Your task to perform on an android device: turn off location history Image 0: 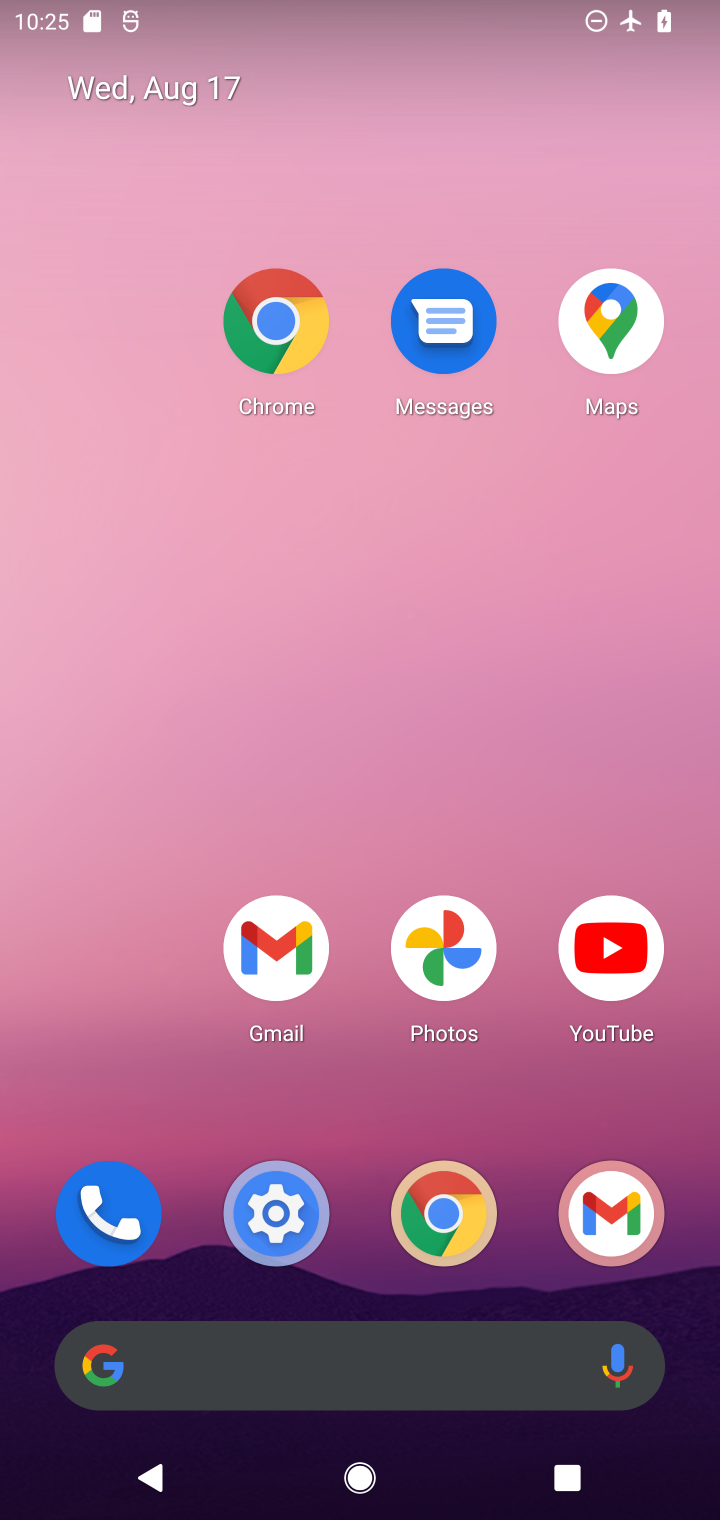
Step 0: click (215, 1217)
Your task to perform on an android device: turn off location history Image 1: 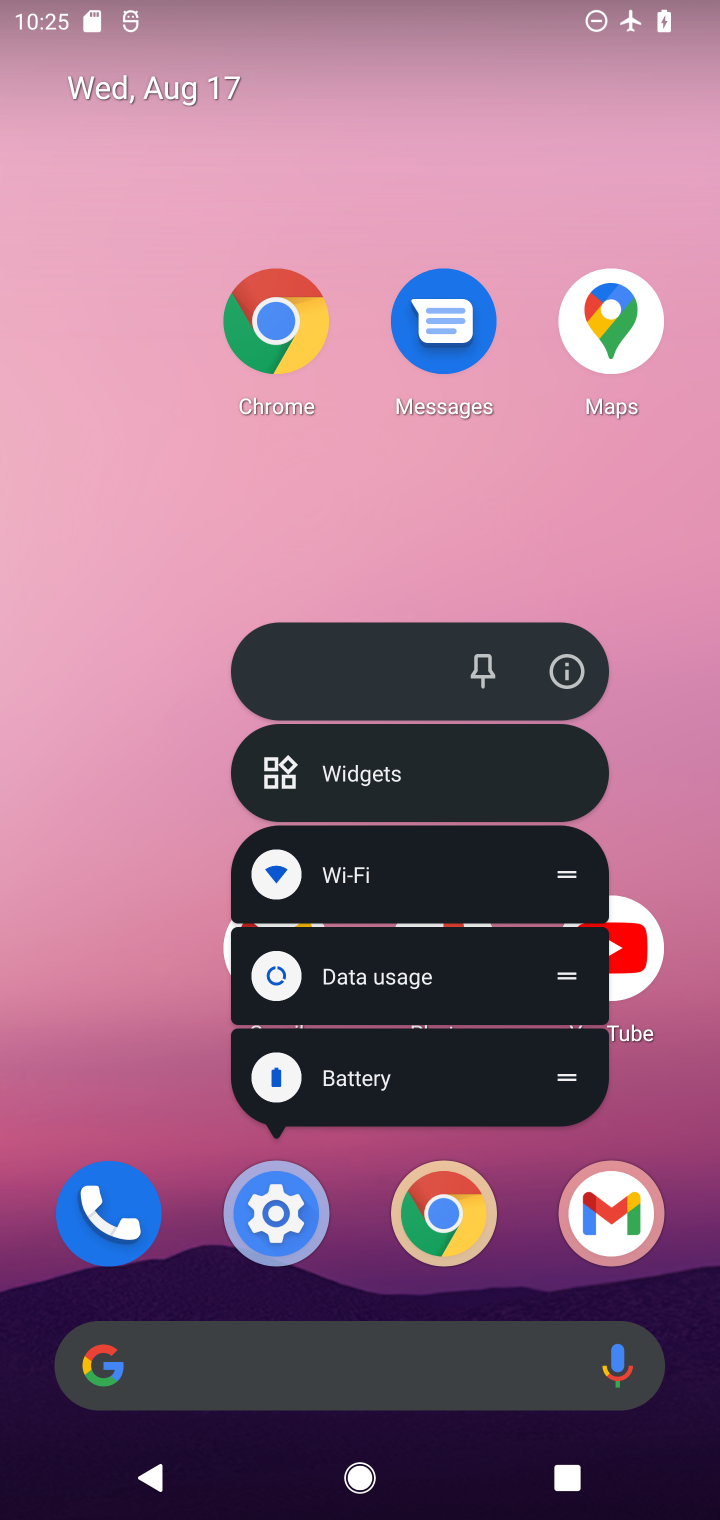
Step 1: click (288, 1246)
Your task to perform on an android device: turn off location history Image 2: 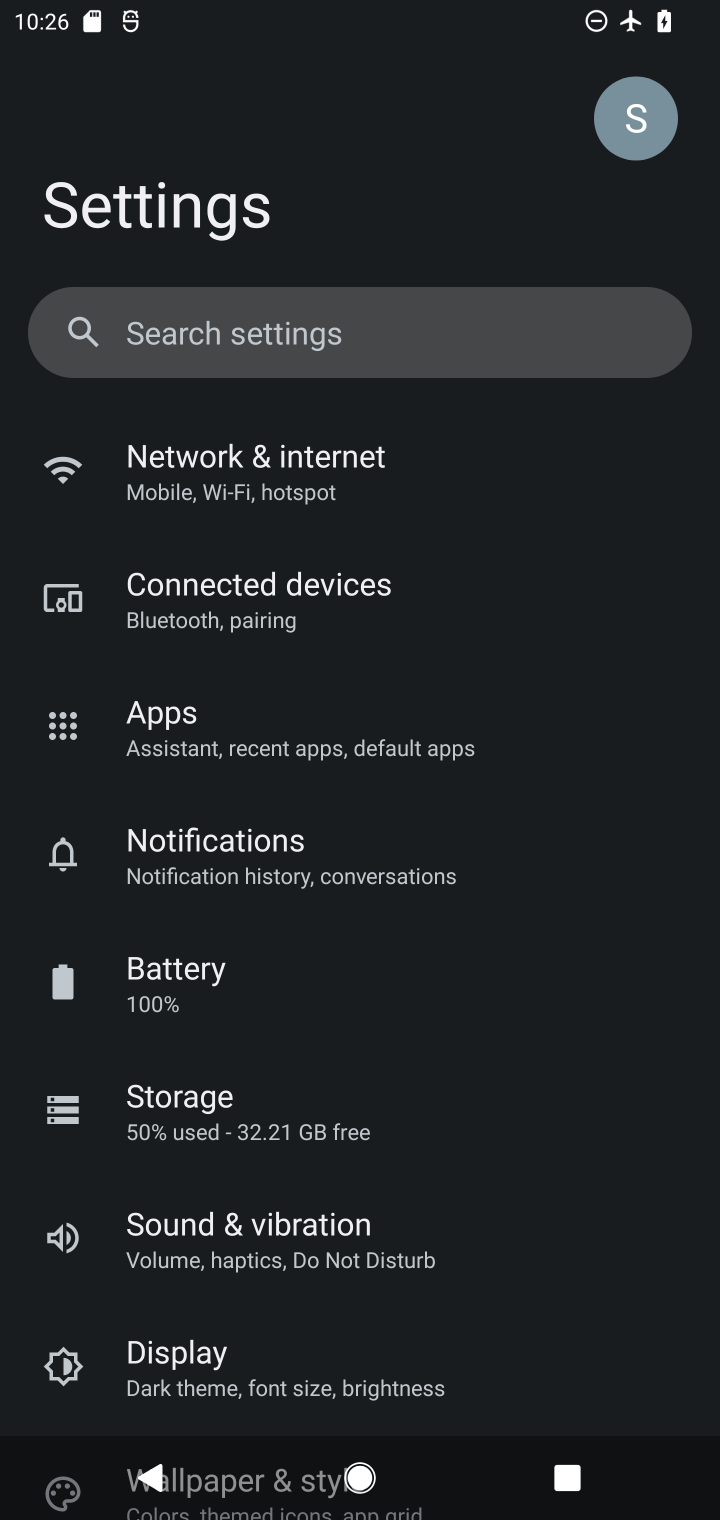
Step 2: drag from (341, 1267) to (335, 597)
Your task to perform on an android device: turn off location history Image 3: 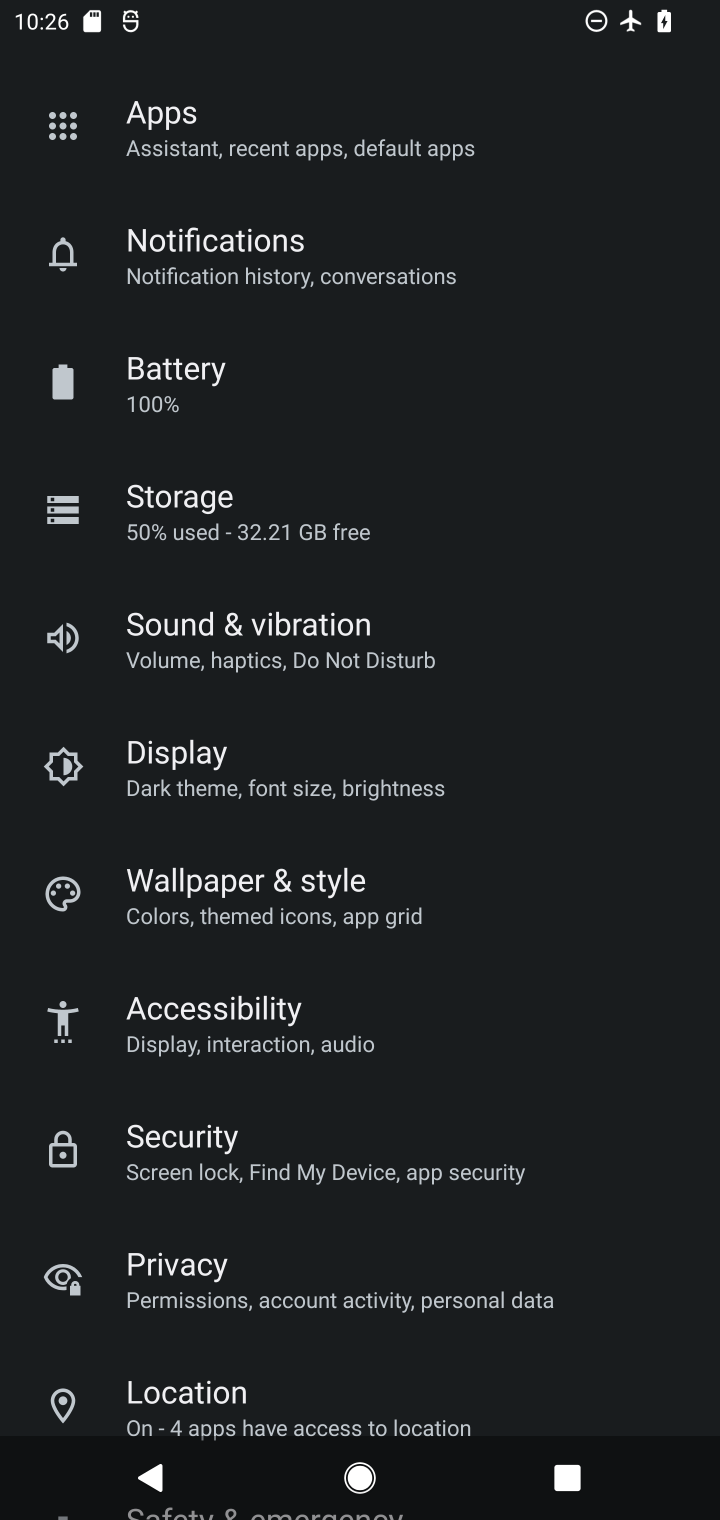
Step 3: click (337, 1373)
Your task to perform on an android device: turn off location history Image 4: 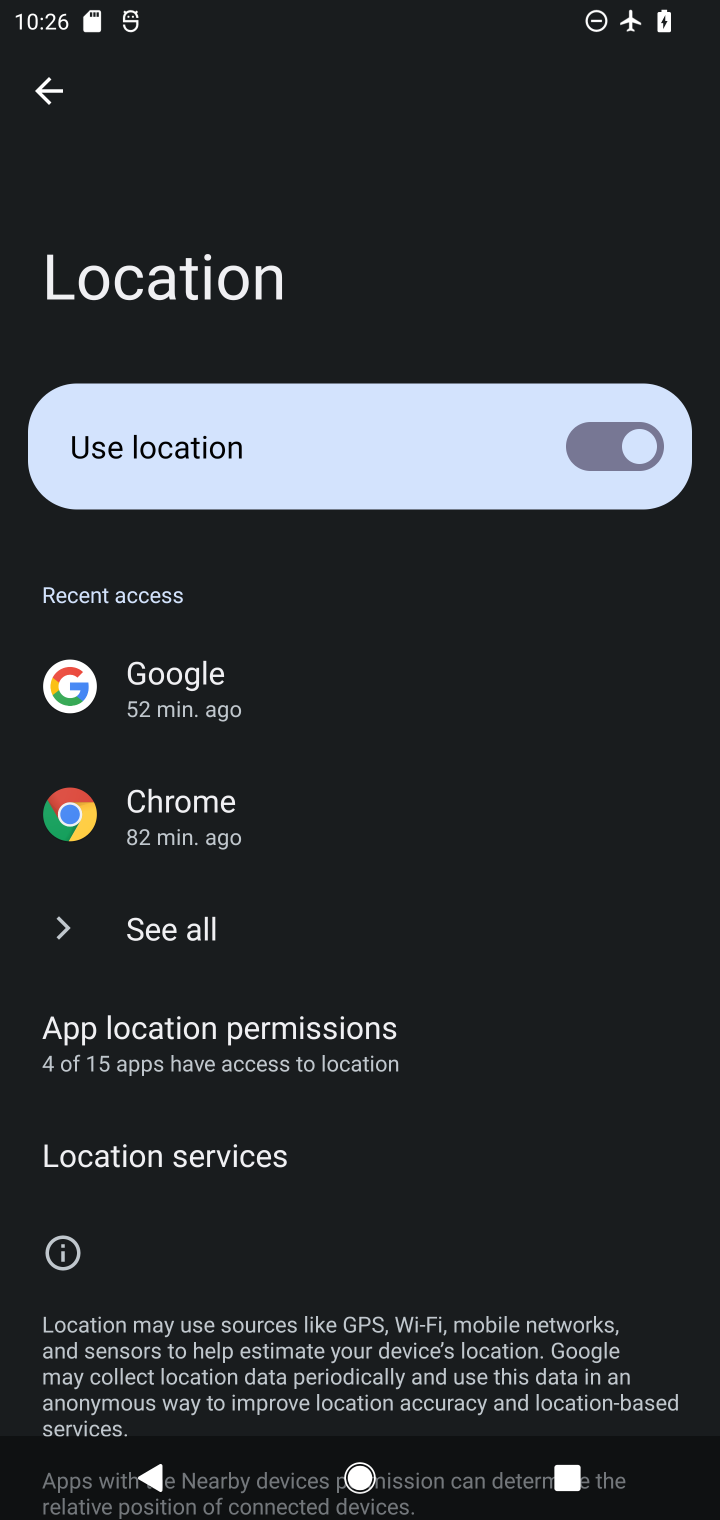
Step 4: task complete